Your task to perform on an android device: Open notification settings Image 0: 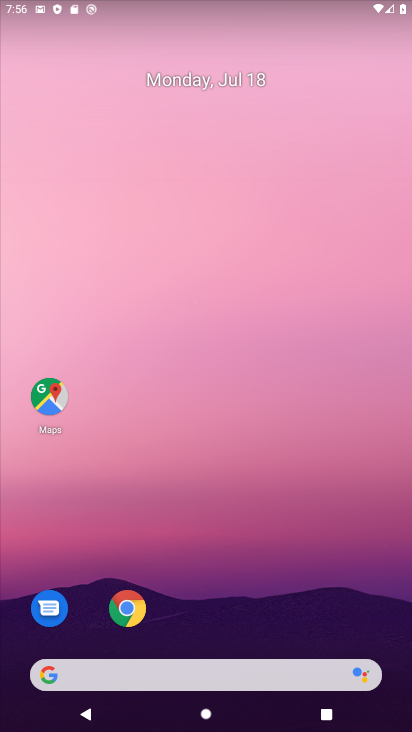
Step 0: drag from (227, 693) to (227, 73)
Your task to perform on an android device: Open notification settings Image 1: 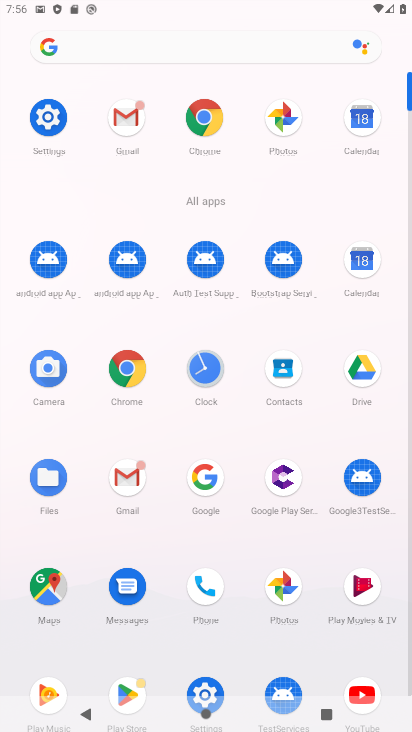
Step 1: click (203, 688)
Your task to perform on an android device: Open notification settings Image 2: 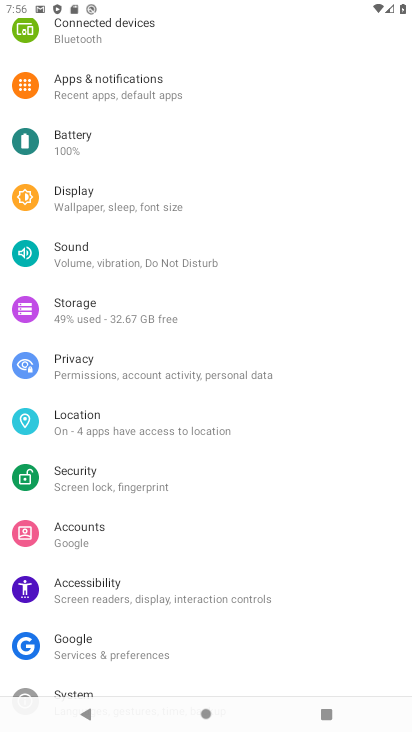
Step 2: click (96, 83)
Your task to perform on an android device: Open notification settings Image 3: 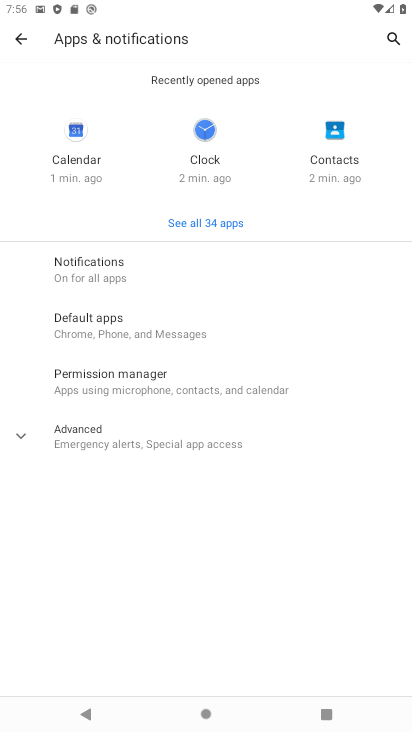
Step 3: click (91, 274)
Your task to perform on an android device: Open notification settings Image 4: 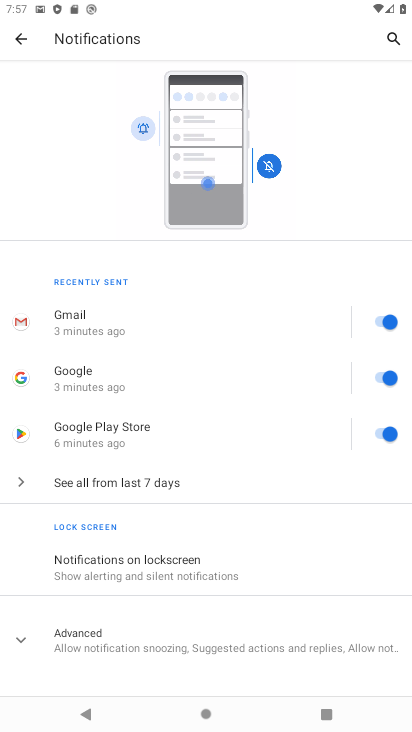
Step 4: task complete